Your task to perform on an android device: Go to Android settings Image 0: 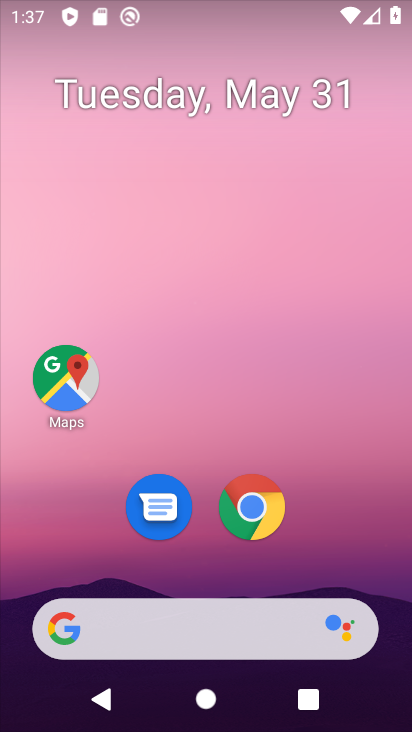
Step 0: drag from (178, 584) to (246, 138)
Your task to perform on an android device: Go to Android settings Image 1: 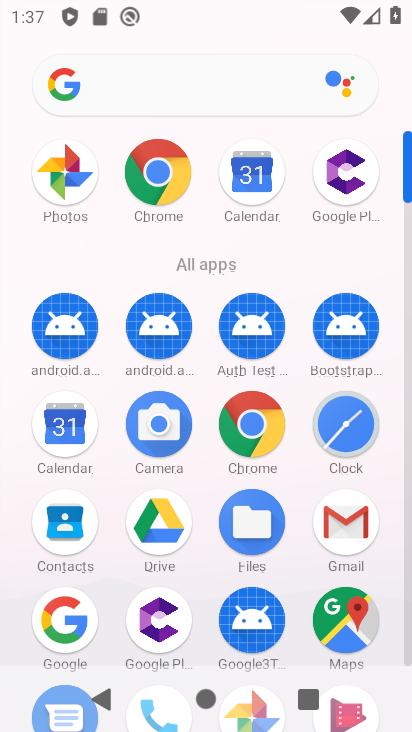
Step 1: drag from (208, 587) to (275, 175)
Your task to perform on an android device: Go to Android settings Image 2: 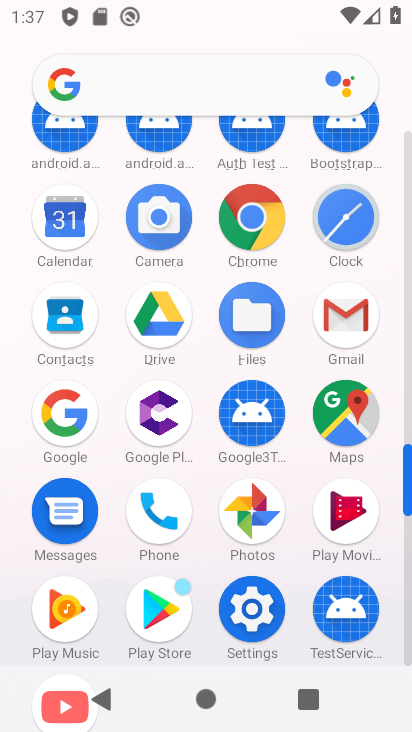
Step 2: click (238, 606)
Your task to perform on an android device: Go to Android settings Image 3: 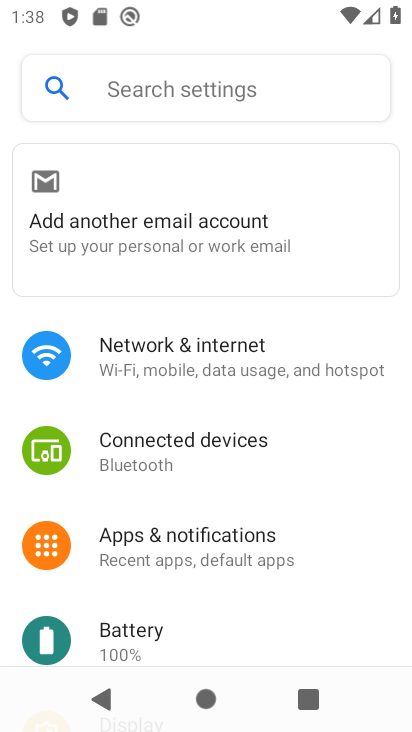
Step 3: task complete